Your task to perform on an android device: uninstall "Mercado Libre" Image 0: 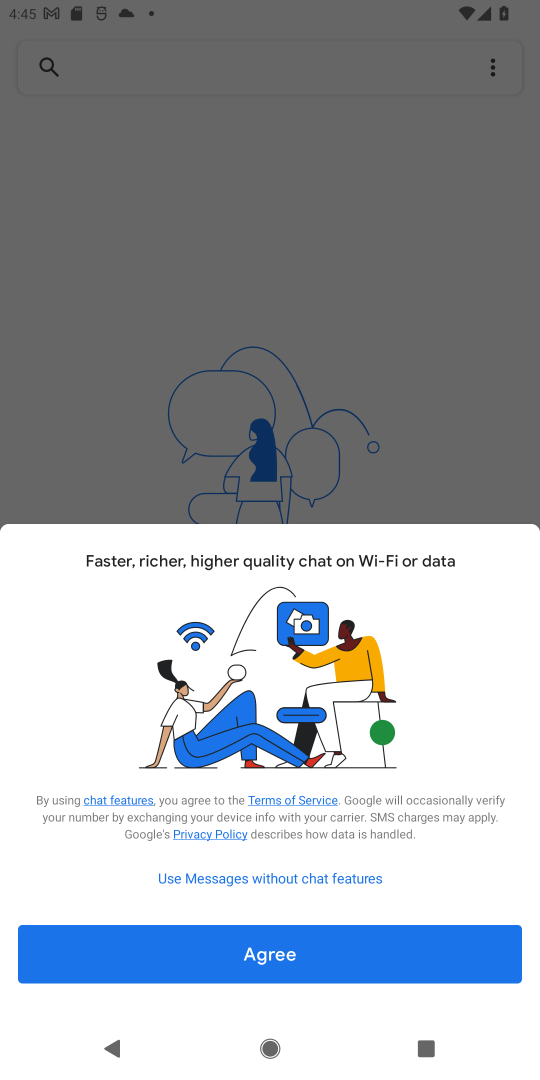
Step 0: press home button
Your task to perform on an android device: uninstall "Mercado Libre" Image 1: 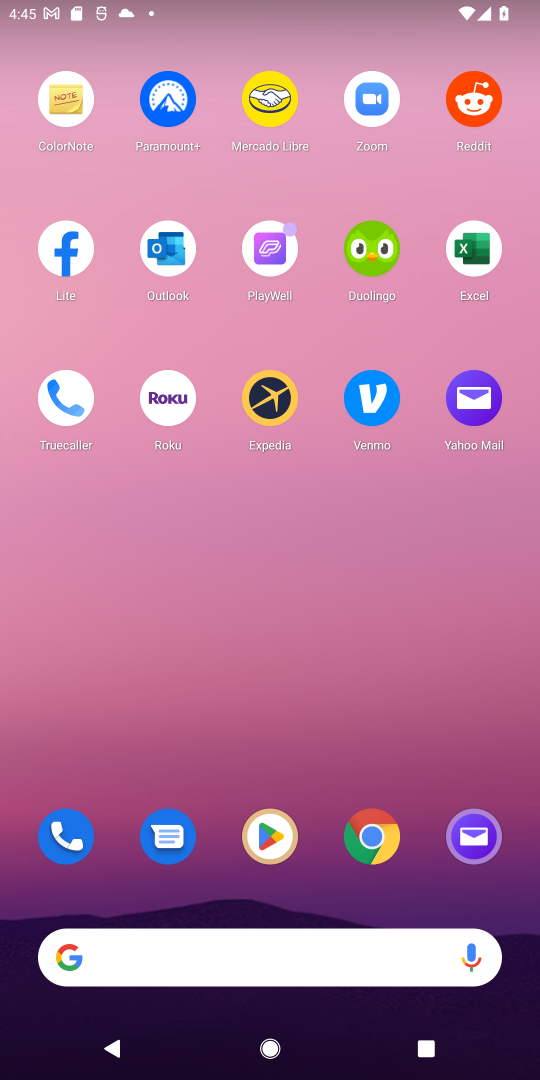
Step 1: drag from (117, 847) to (127, 64)
Your task to perform on an android device: uninstall "Mercado Libre" Image 2: 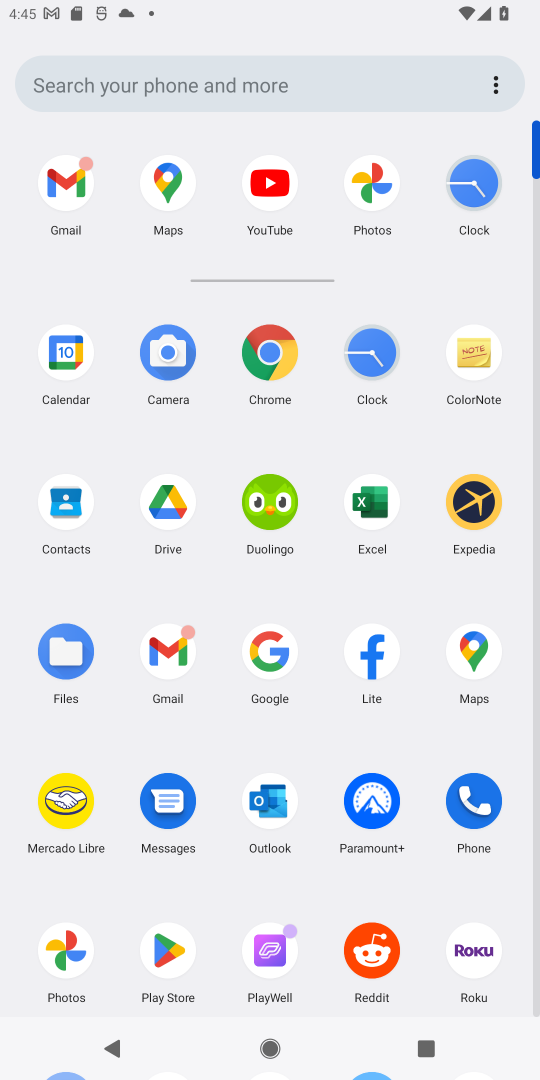
Step 2: click (158, 939)
Your task to perform on an android device: uninstall "Mercado Libre" Image 3: 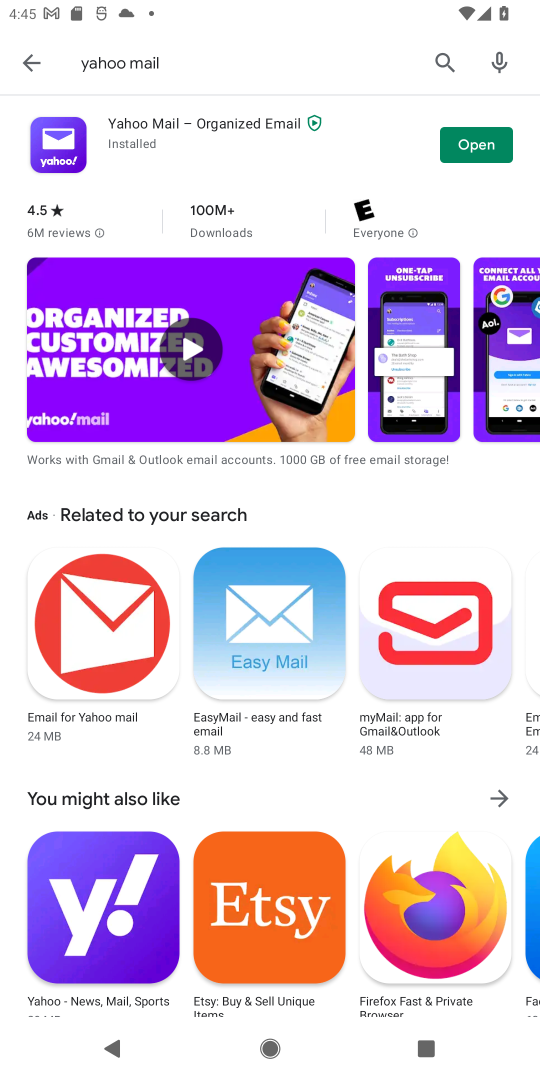
Step 3: click (45, 52)
Your task to perform on an android device: uninstall "Mercado Libre" Image 4: 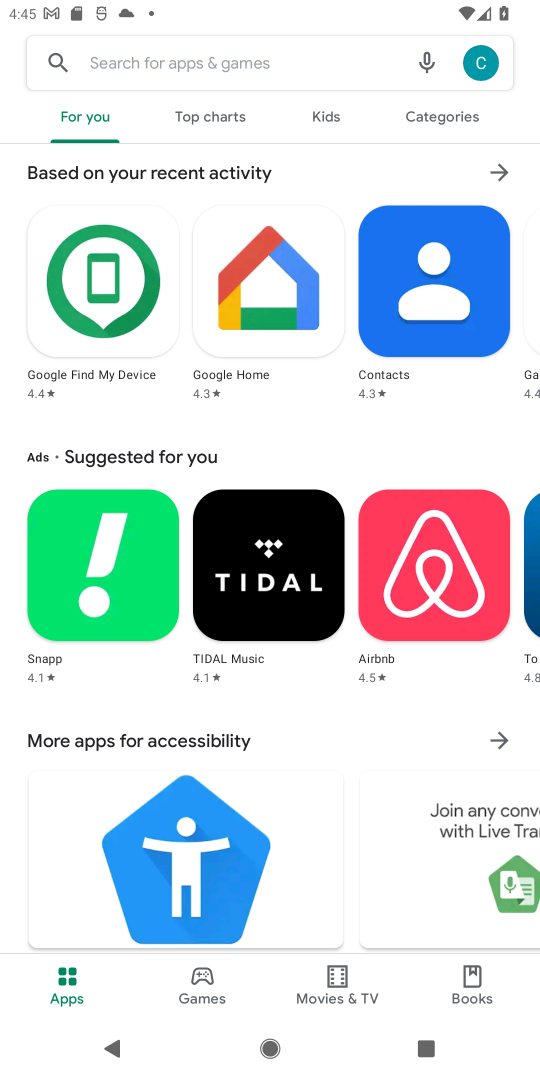
Step 4: click (248, 52)
Your task to perform on an android device: uninstall "Mercado Libre" Image 5: 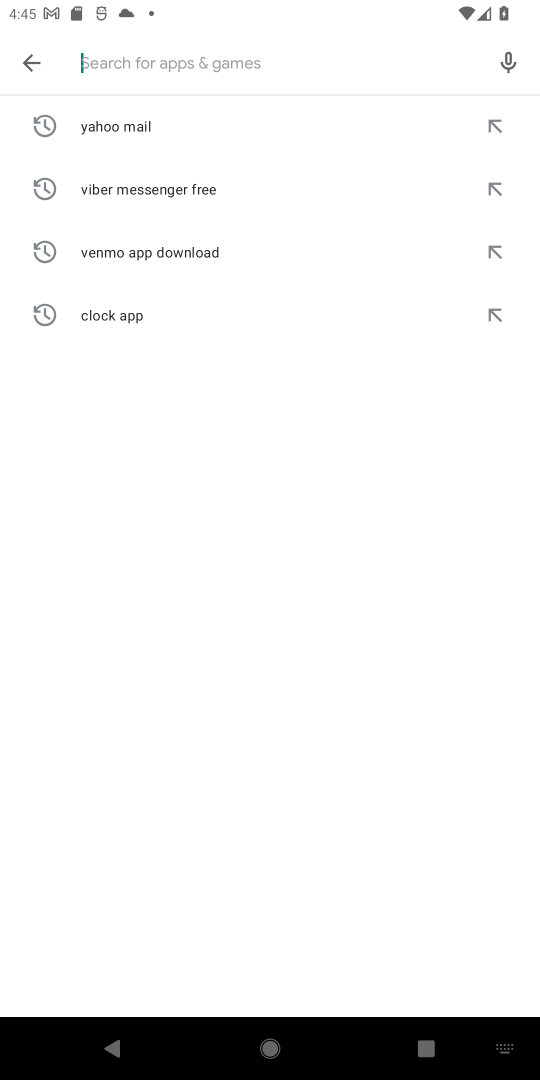
Step 5: type ""
Your task to perform on an android device: uninstall "Mercado Libre" Image 6: 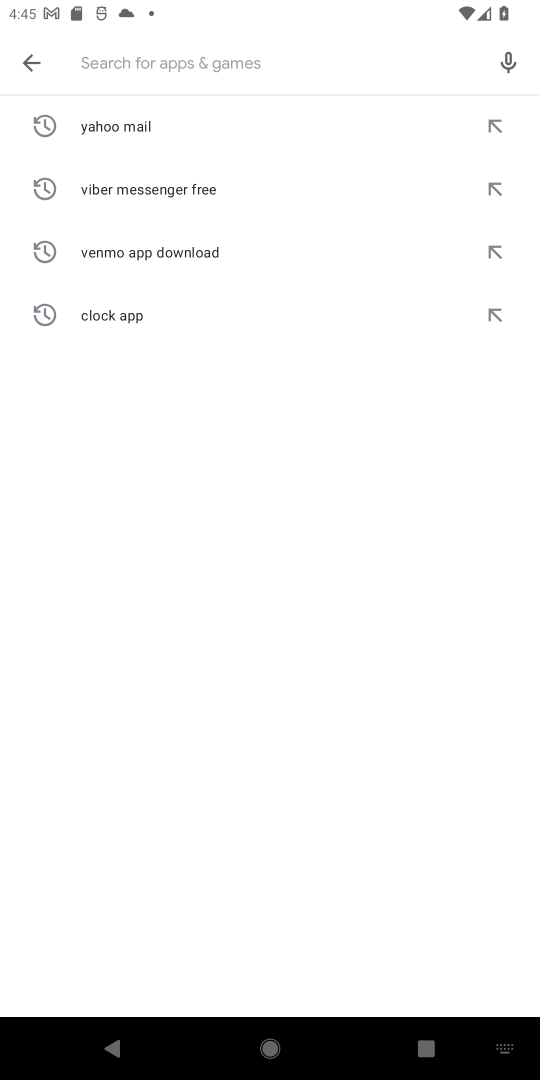
Step 6: type "Mercado Libre" "
Your task to perform on an android device: uninstall "Mercado Libre" Image 7: 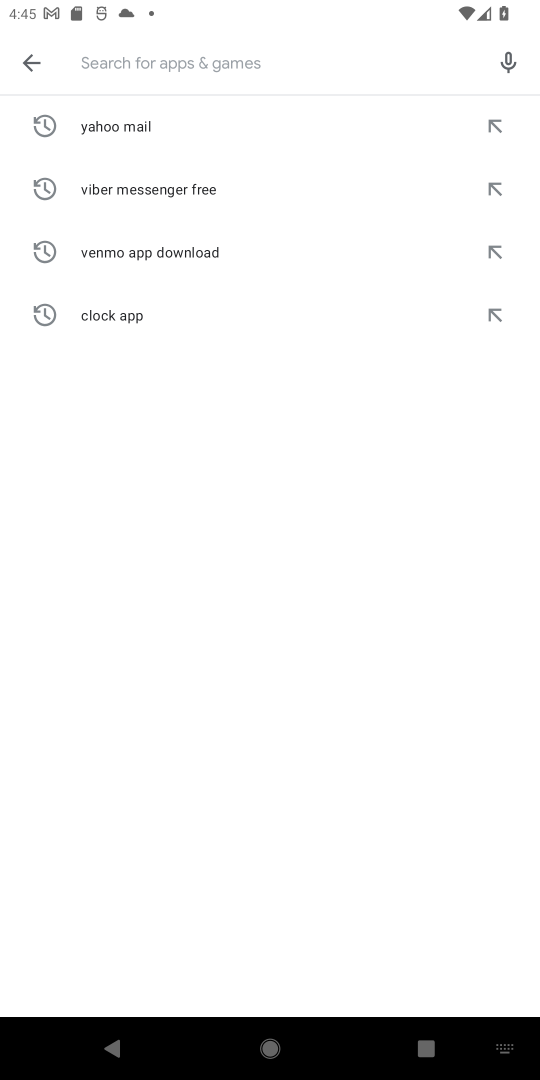
Step 7: click (126, 51)
Your task to perform on an android device: uninstall "Mercado Libre" Image 8: 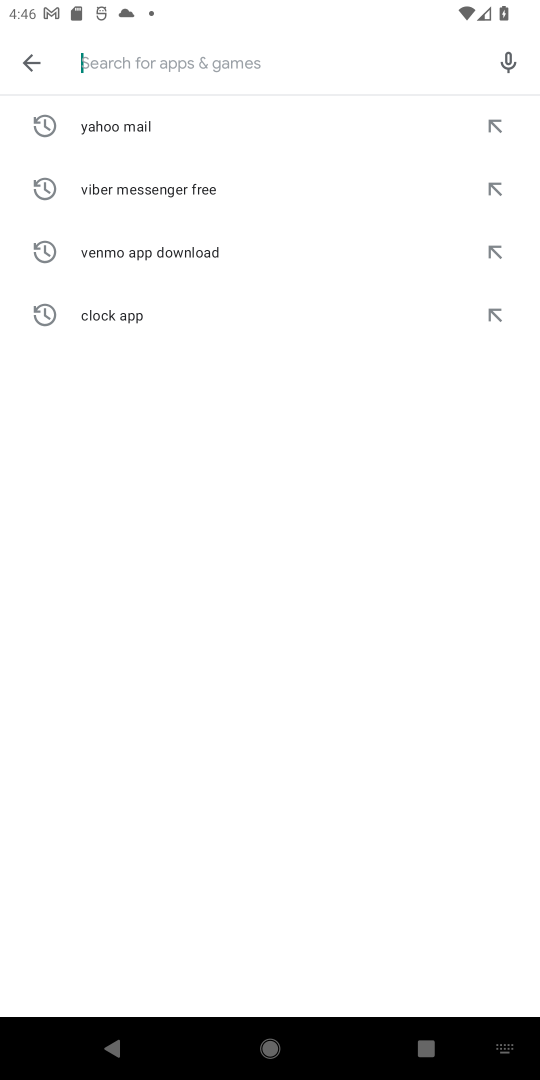
Step 8: type "mercsdo libre "
Your task to perform on an android device: uninstall "Mercado Libre" Image 9: 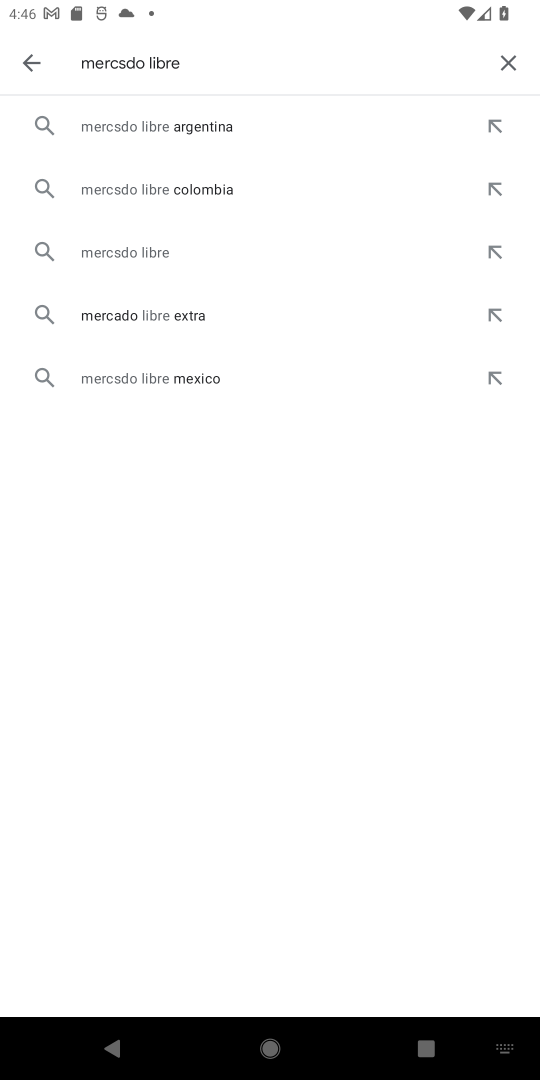
Step 9: click (159, 239)
Your task to perform on an android device: uninstall "Mercado Libre" Image 10: 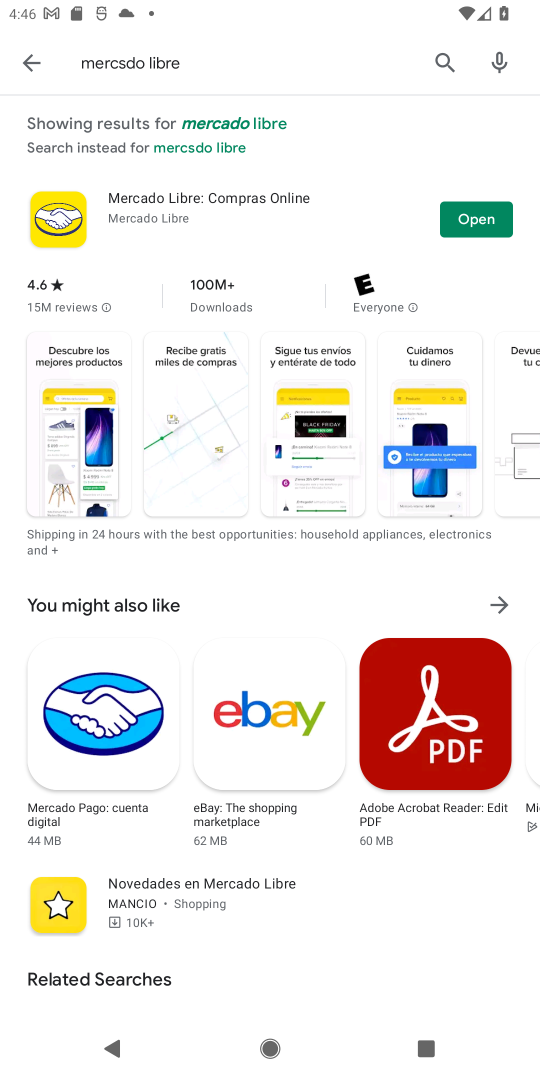
Step 10: click (276, 205)
Your task to perform on an android device: uninstall "Mercado Libre" Image 11: 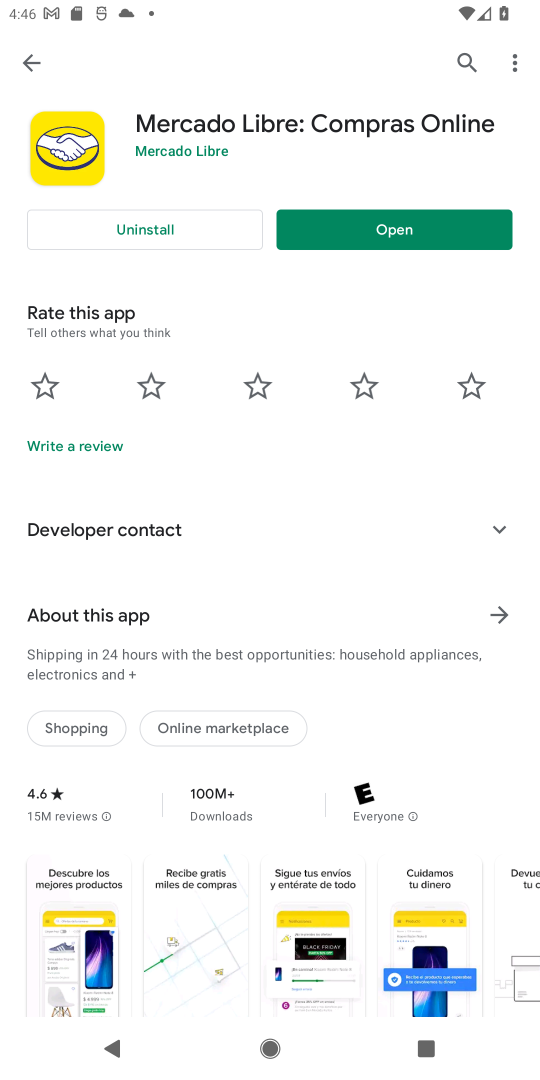
Step 11: click (129, 213)
Your task to perform on an android device: uninstall "Mercado Libre" Image 12: 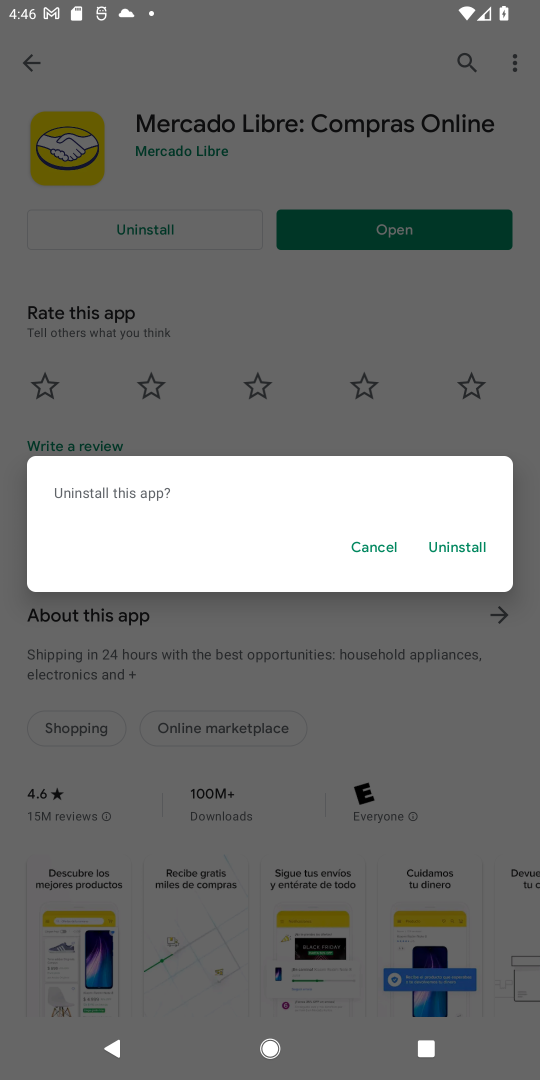
Step 12: click (452, 533)
Your task to perform on an android device: uninstall "Mercado Libre" Image 13: 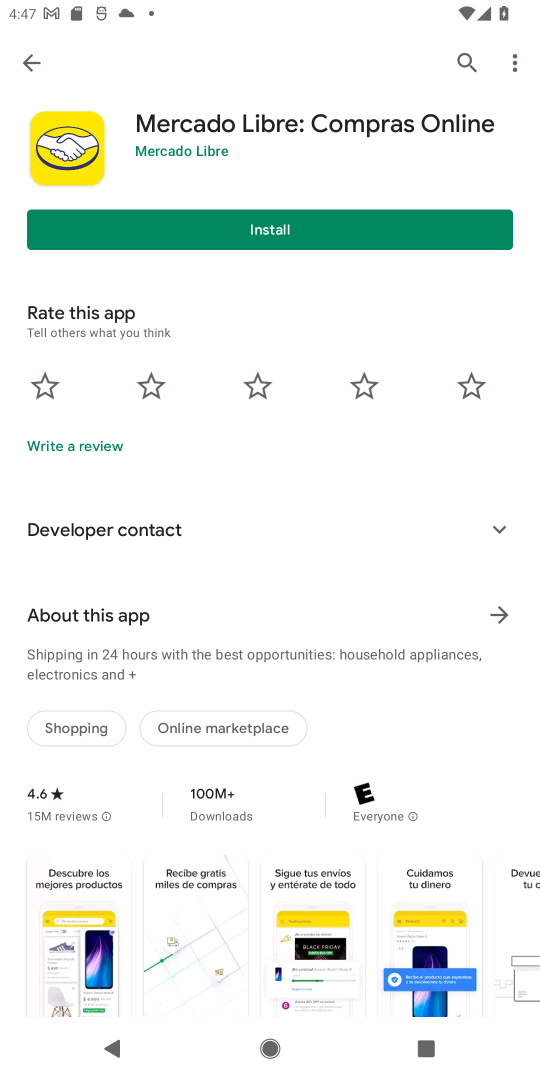
Step 13: task complete